Your task to perform on an android device: turn on airplane mode Image 0: 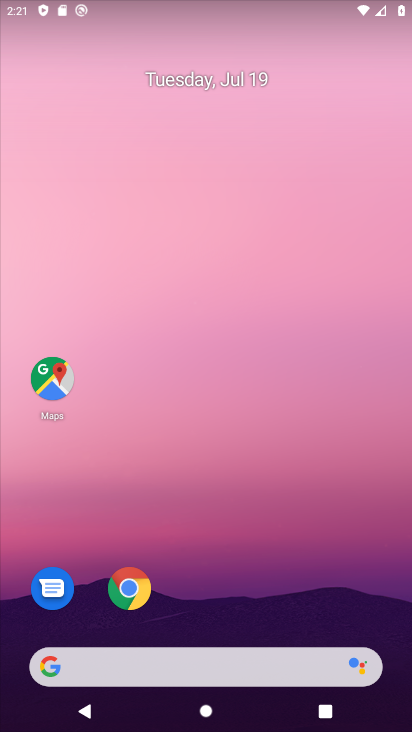
Step 0: press home button
Your task to perform on an android device: turn on airplane mode Image 1: 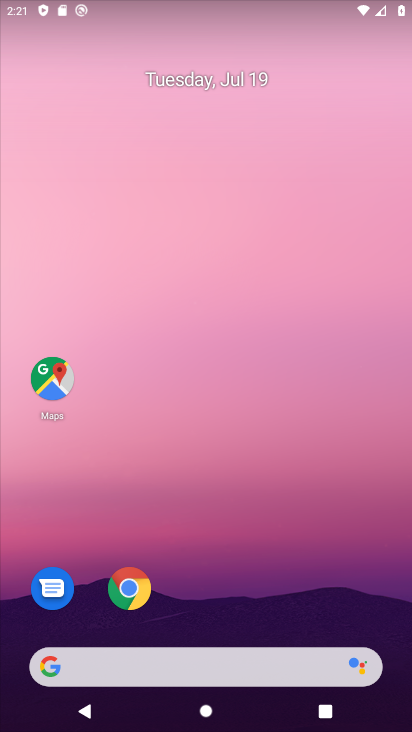
Step 1: drag from (207, 10) to (243, 565)
Your task to perform on an android device: turn on airplane mode Image 2: 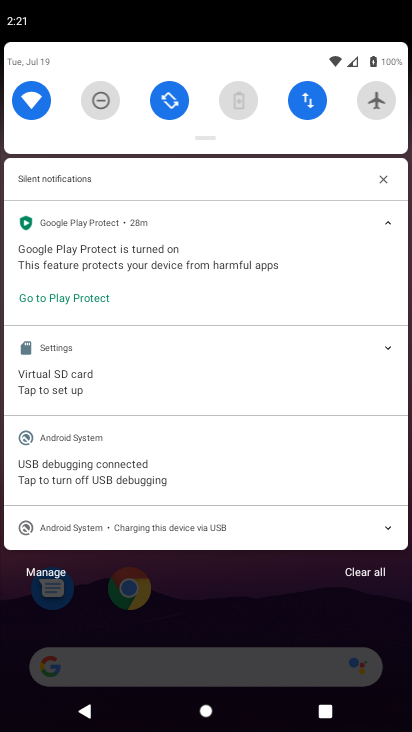
Step 2: click (381, 101)
Your task to perform on an android device: turn on airplane mode Image 3: 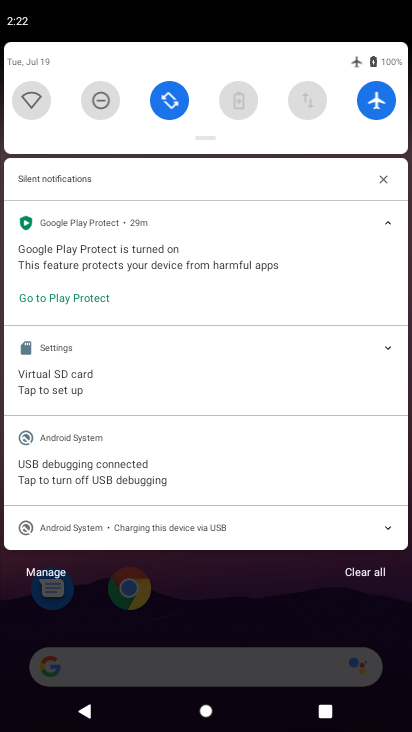
Step 3: task complete